Your task to perform on an android device: Open notification settings Image 0: 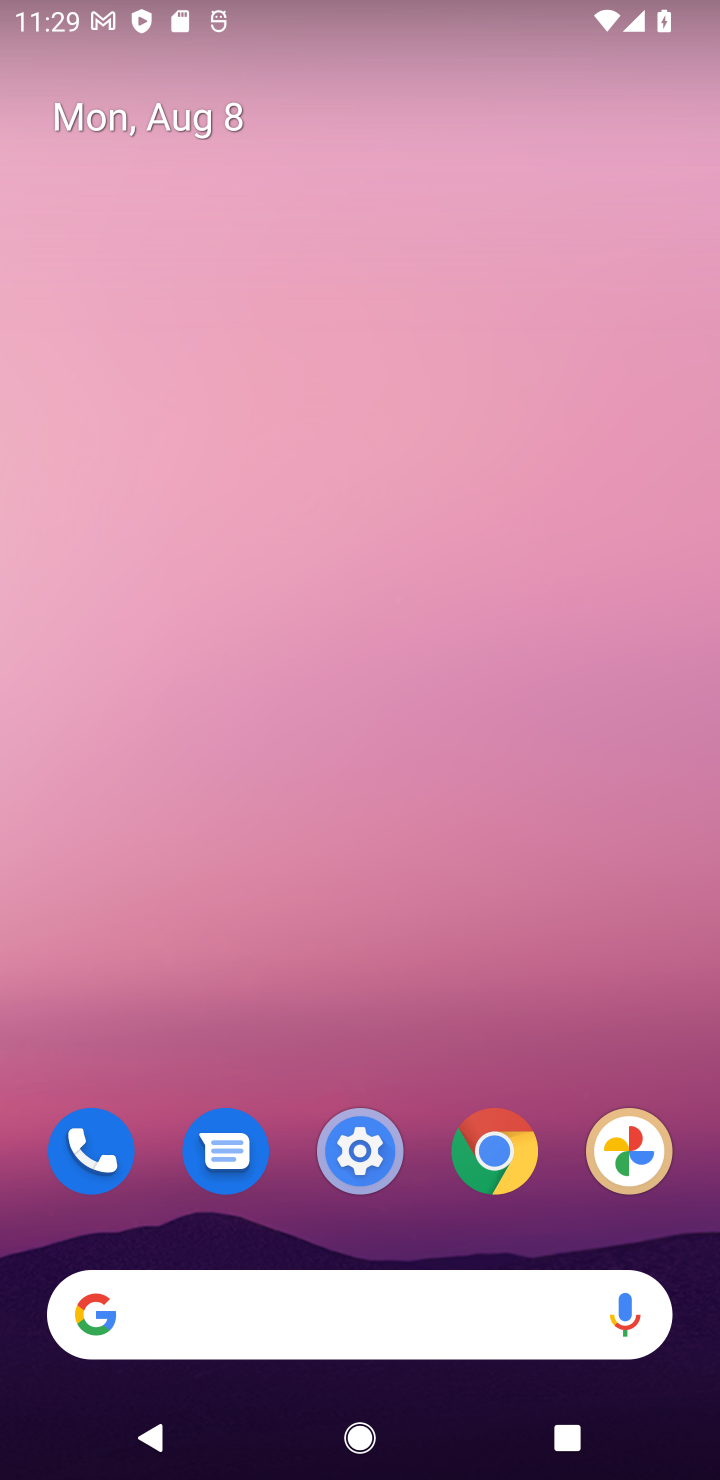
Step 0: click (376, 1128)
Your task to perform on an android device: Open notification settings Image 1: 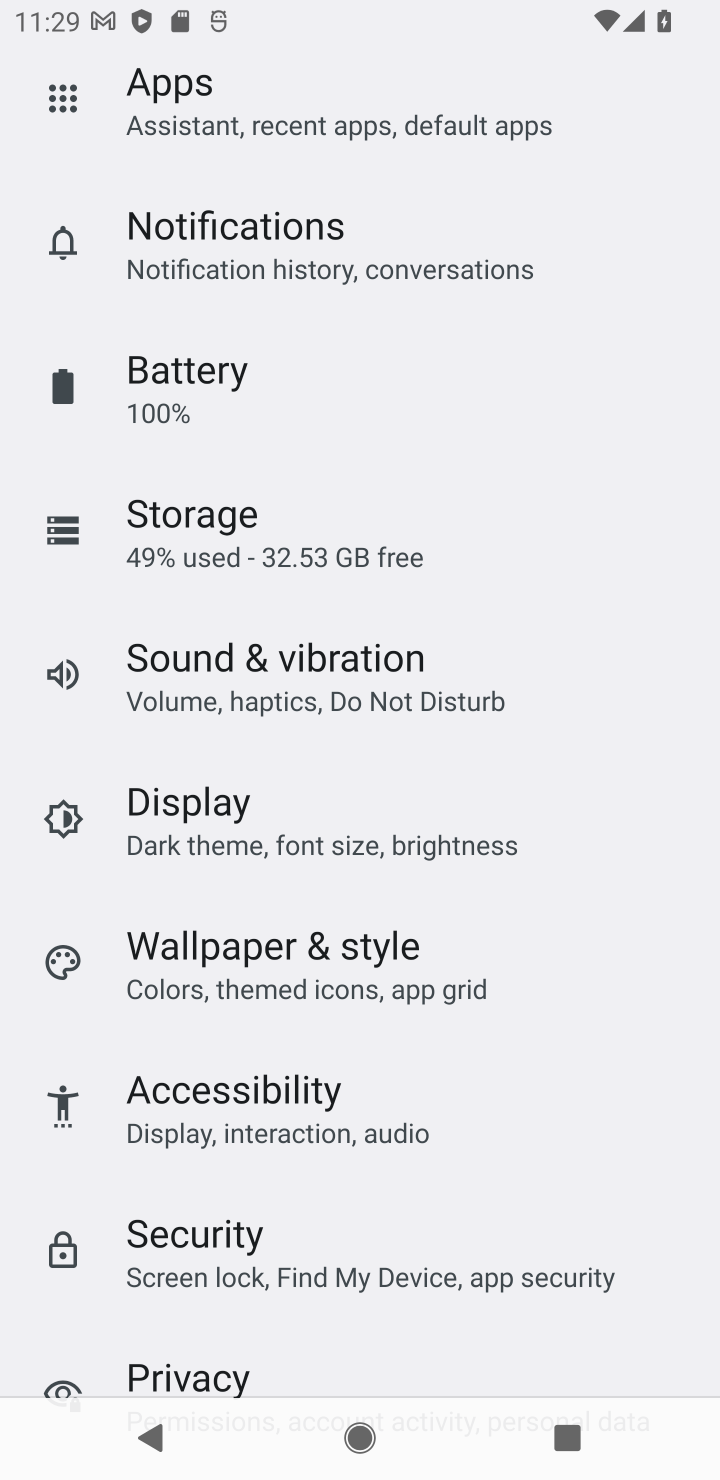
Step 1: click (351, 247)
Your task to perform on an android device: Open notification settings Image 2: 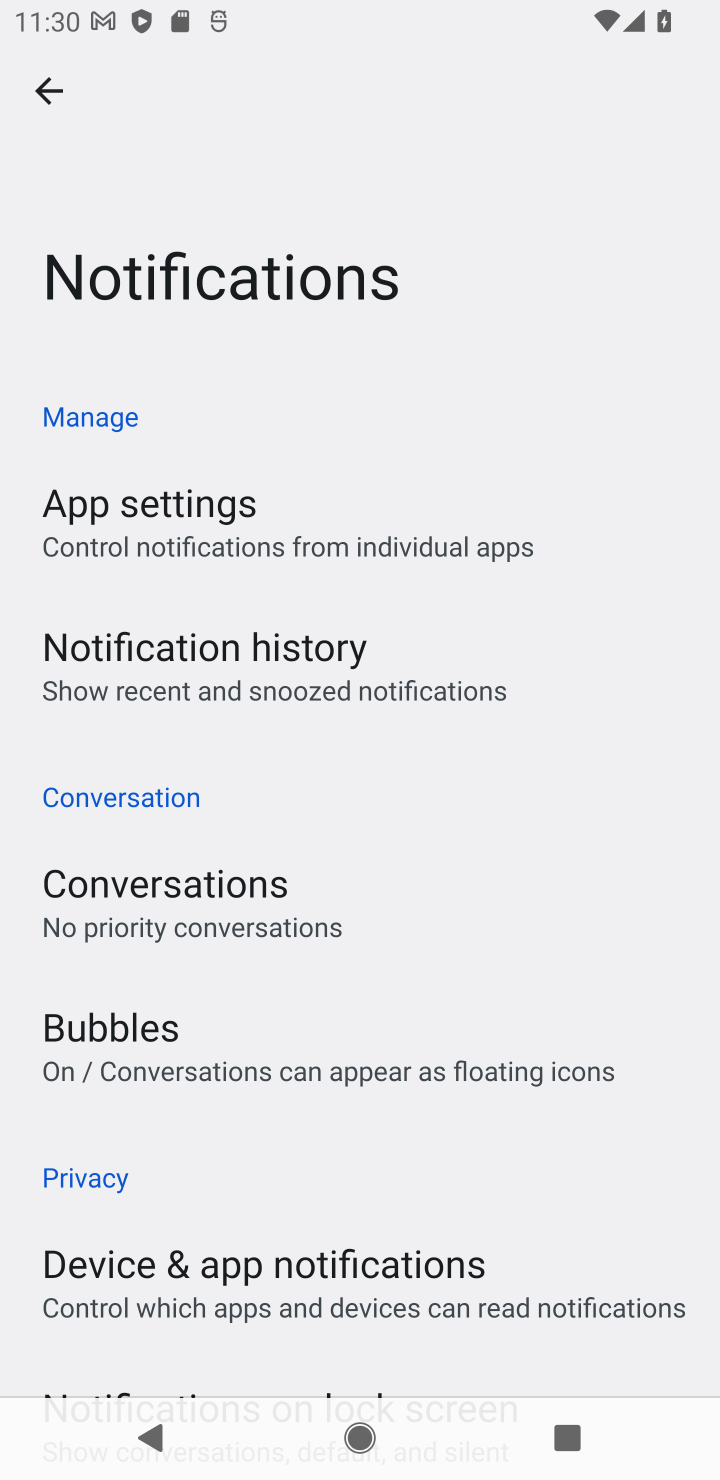
Step 2: task complete